Your task to perform on an android device: Go to ESPN.com Image 0: 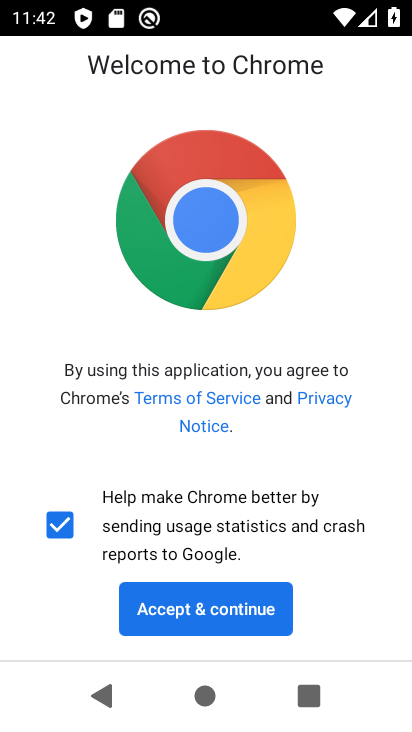
Step 0: click (242, 610)
Your task to perform on an android device: Go to ESPN.com Image 1: 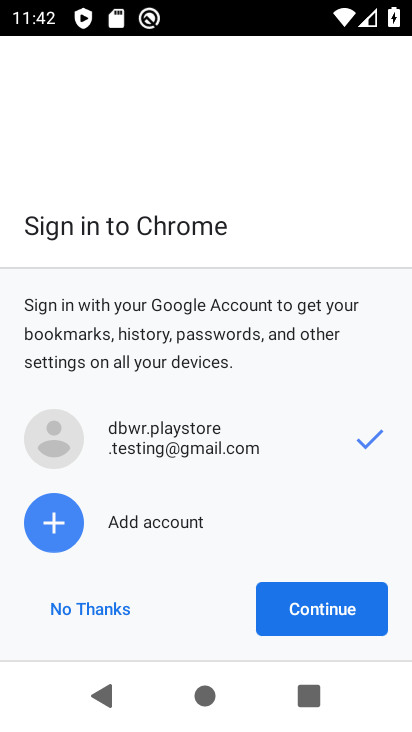
Step 1: click (292, 613)
Your task to perform on an android device: Go to ESPN.com Image 2: 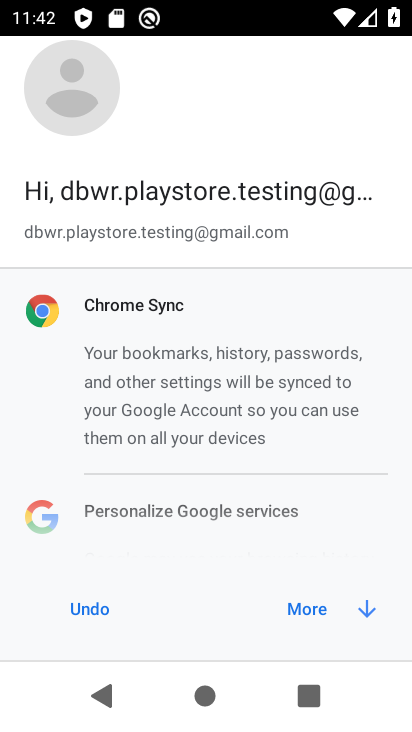
Step 2: click (290, 607)
Your task to perform on an android device: Go to ESPN.com Image 3: 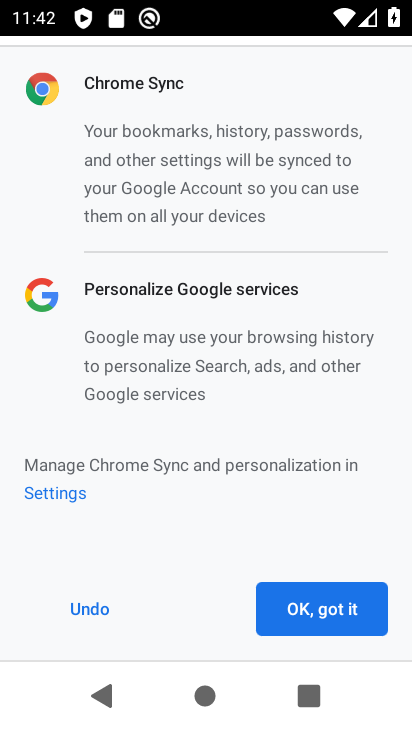
Step 3: click (278, 611)
Your task to perform on an android device: Go to ESPN.com Image 4: 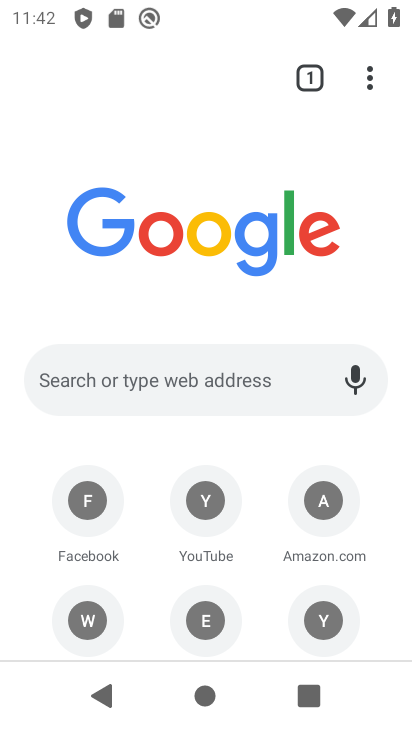
Step 4: click (167, 79)
Your task to perform on an android device: Go to ESPN.com Image 5: 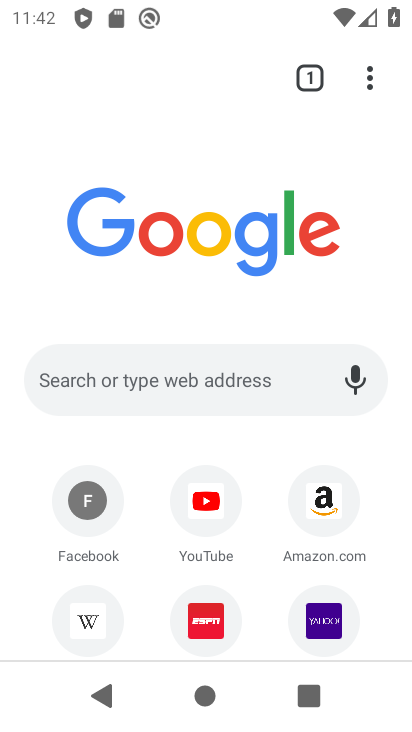
Step 5: click (199, 616)
Your task to perform on an android device: Go to ESPN.com Image 6: 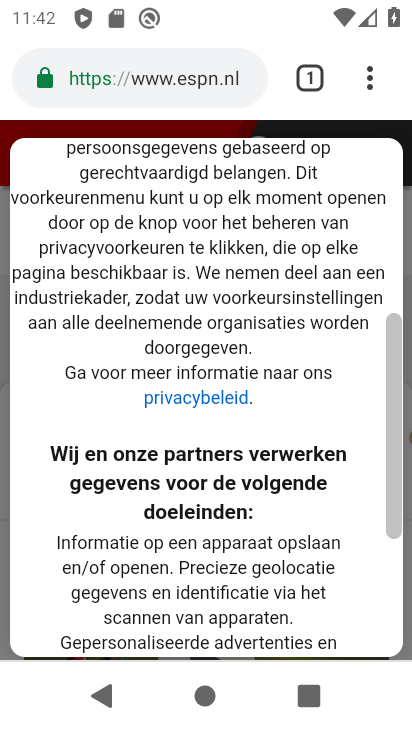
Step 6: task complete